Your task to perform on an android device: open wifi settings Image 0: 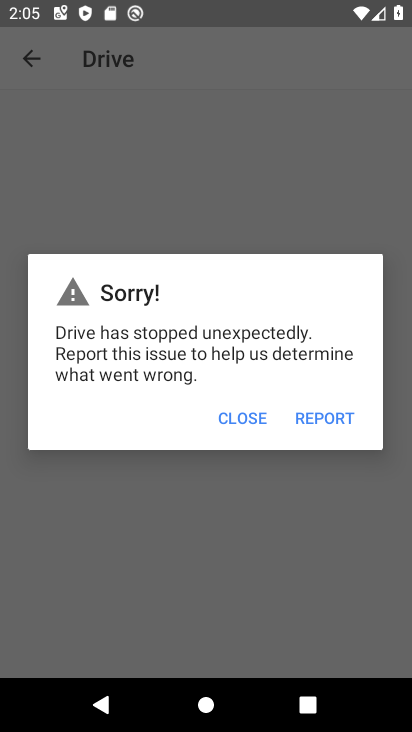
Step 0: drag from (265, 569) to (256, 170)
Your task to perform on an android device: open wifi settings Image 1: 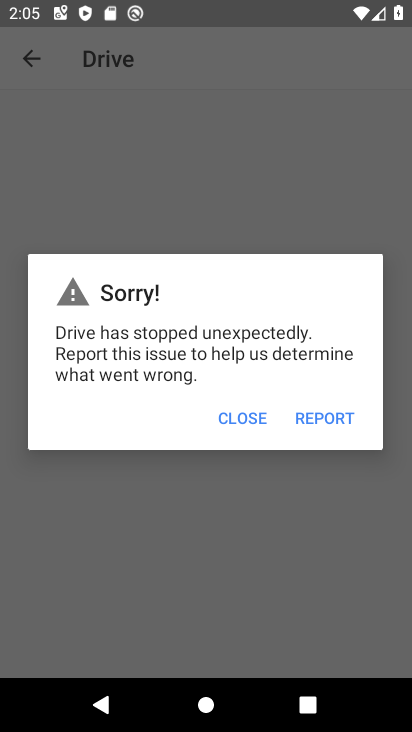
Step 1: press home button
Your task to perform on an android device: open wifi settings Image 2: 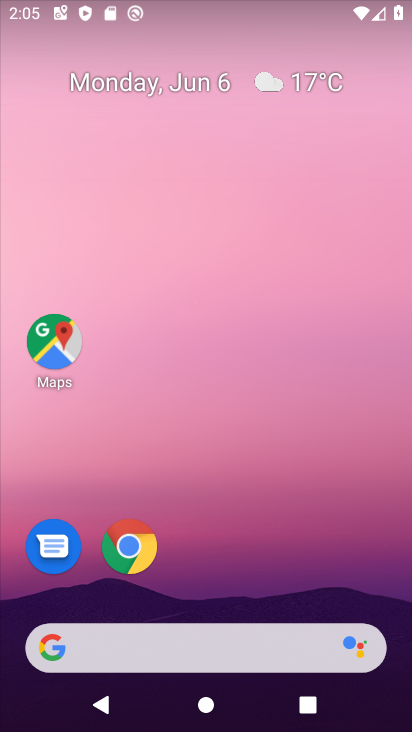
Step 2: drag from (243, 582) to (243, 82)
Your task to perform on an android device: open wifi settings Image 3: 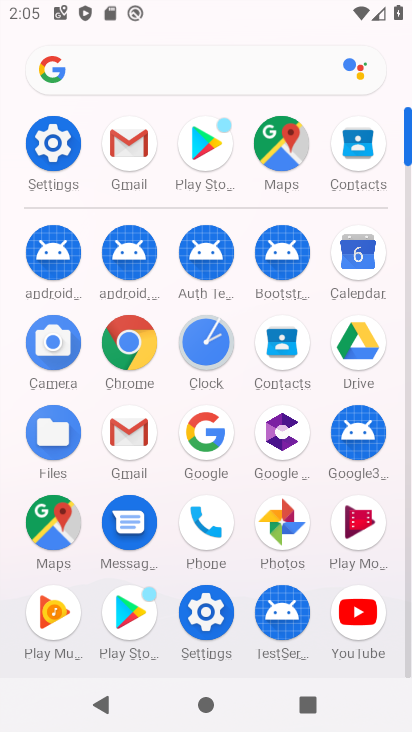
Step 3: click (62, 155)
Your task to perform on an android device: open wifi settings Image 4: 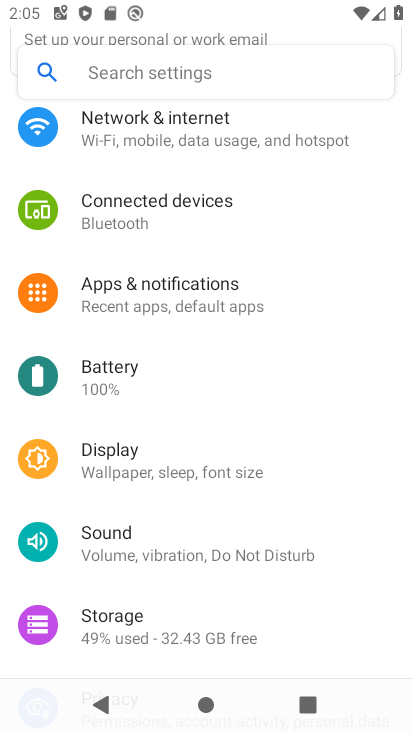
Step 4: drag from (199, 180) to (390, 697)
Your task to perform on an android device: open wifi settings Image 5: 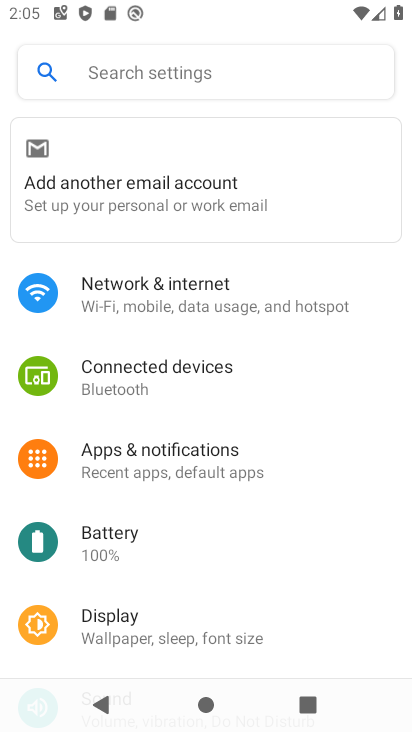
Step 5: click (188, 283)
Your task to perform on an android device: open wifi settings Image 6: 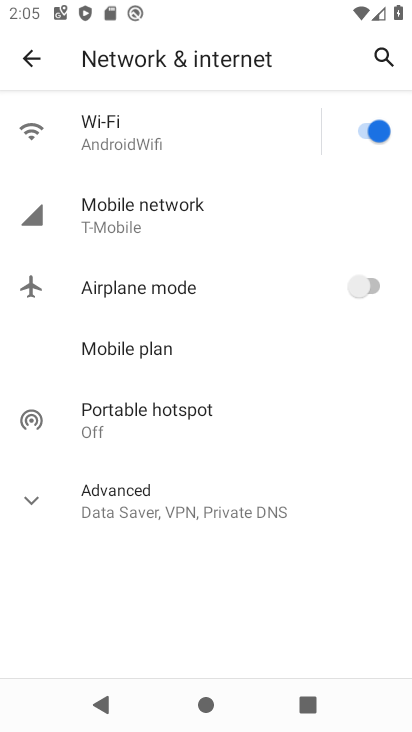
Step 6: click (146, 139)
Your task to perform on an android device: open wifi settings Image 7: 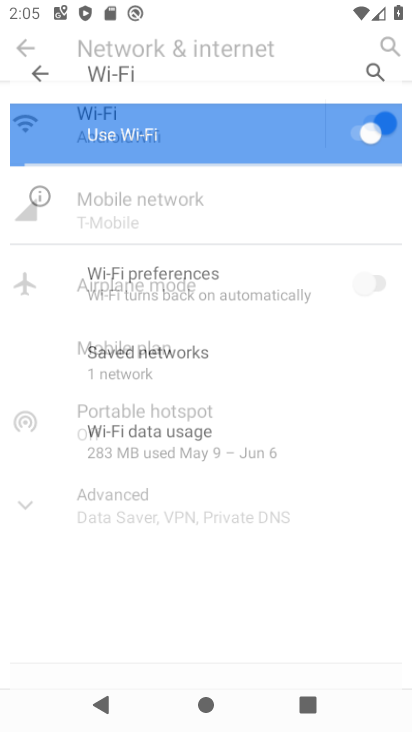
Step 7: task complete